Your task to perform on an android device: change the clock display to show seconds Image 0: 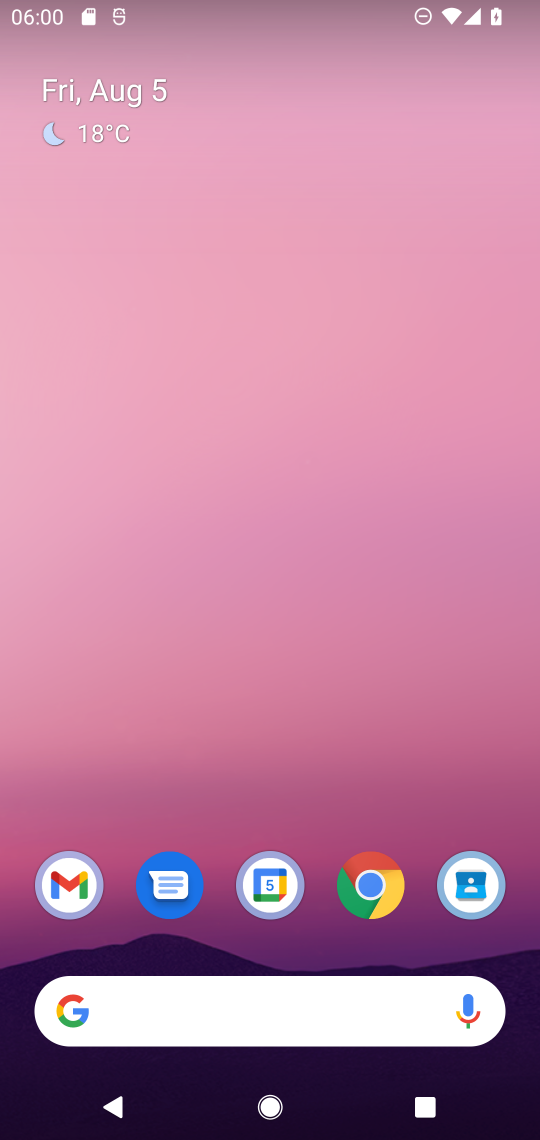
Step 0: drag from (318, 903) to (277, 84)
Your task to perform on an android device: change the clock display to show seconds Image 1: 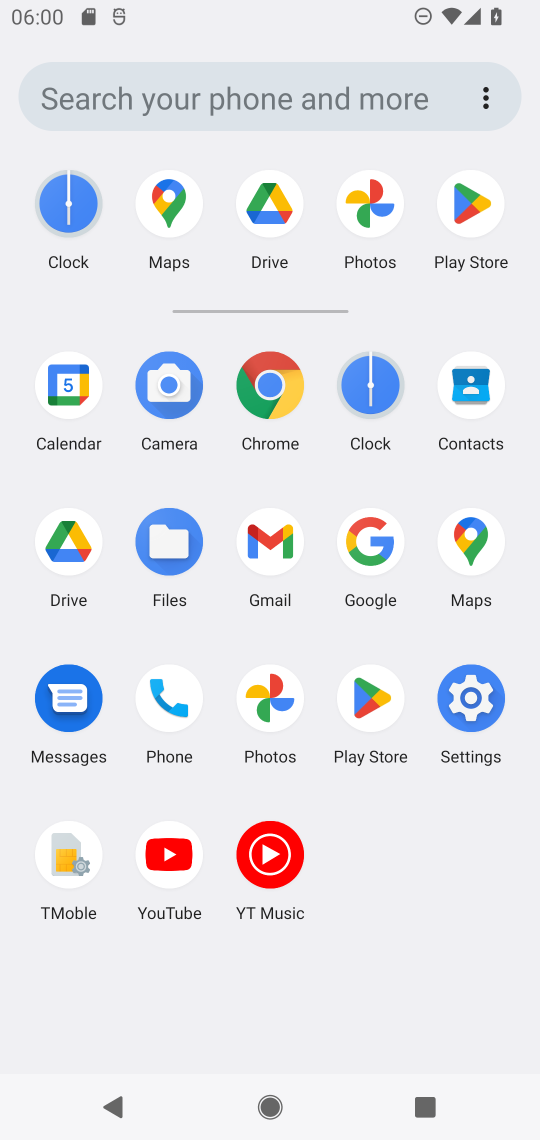
Step 1: click (379, 391)
Your task to perform on an android device: change the clock display to show seconds Image 2: 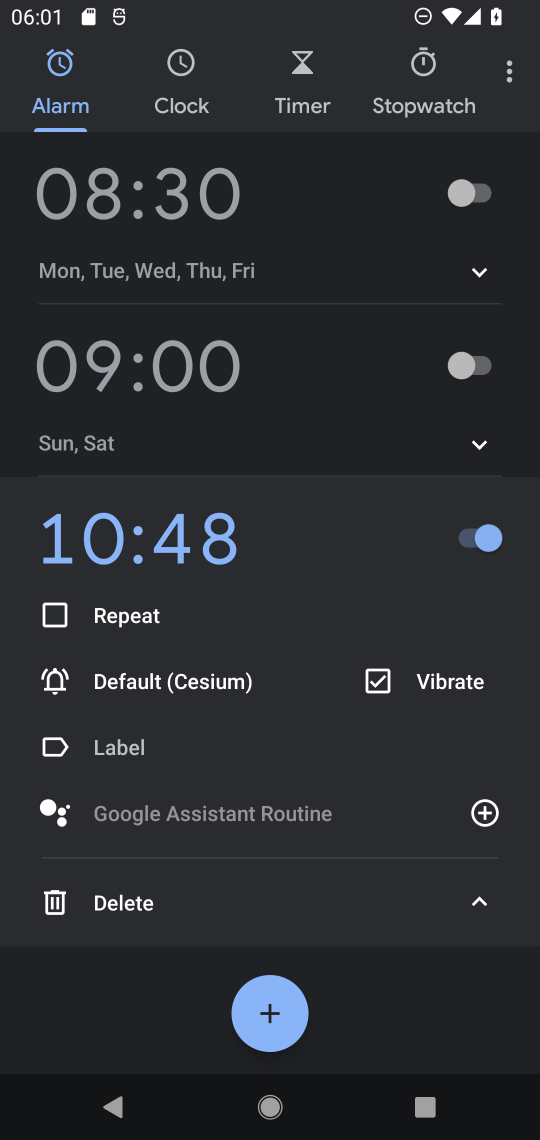
Step 2: click (509, 83)
Your task to perform on an android device: change the clock display to show seconds Image 3: 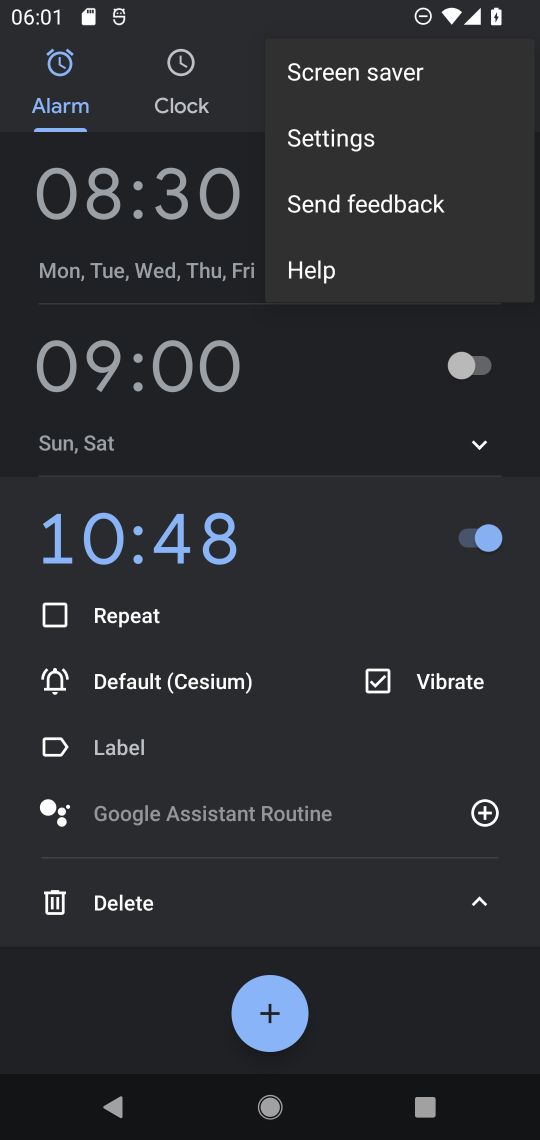
Step 3: click (334, 137)
Your task to perform on an android device: change the clock display to show seconds Image 4: 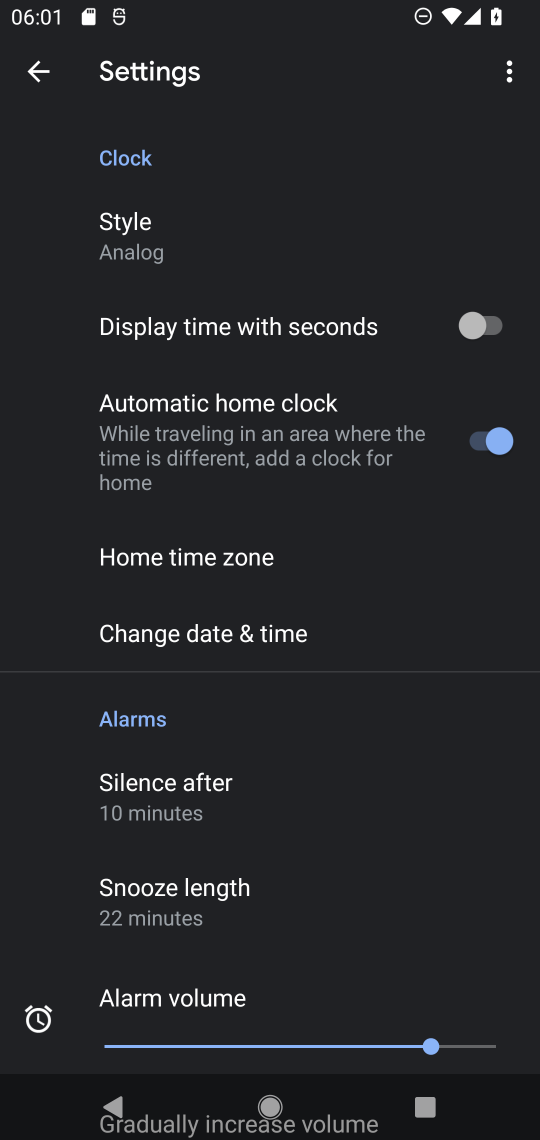
Step 4: click (491, 332)
Your task to perform on an android device: change the clock display to show seconds Image 5: 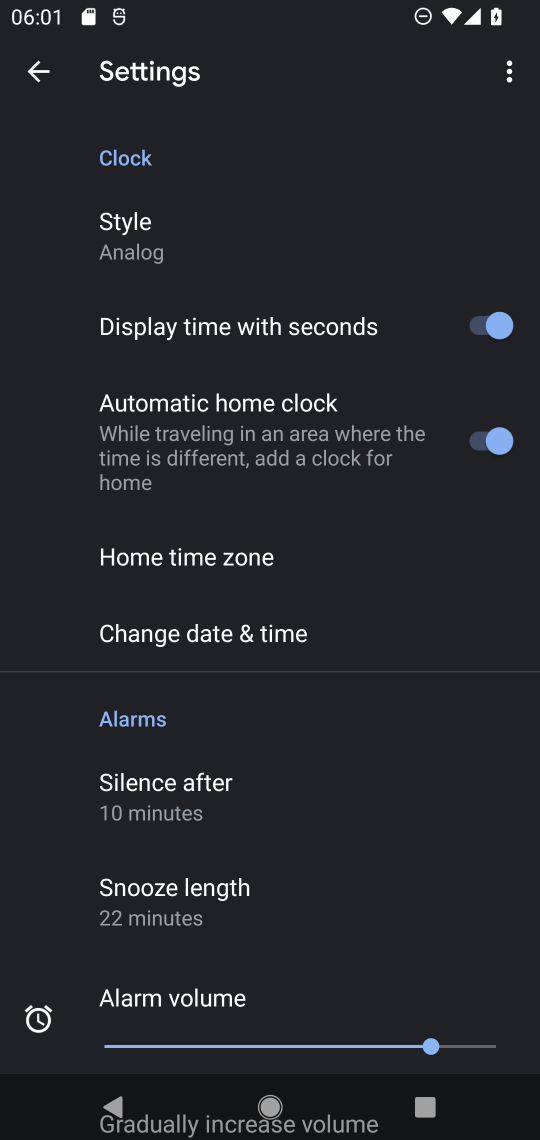
Step 5: task complete